Your task to perform on an android device: all mails in gmail Image 0: 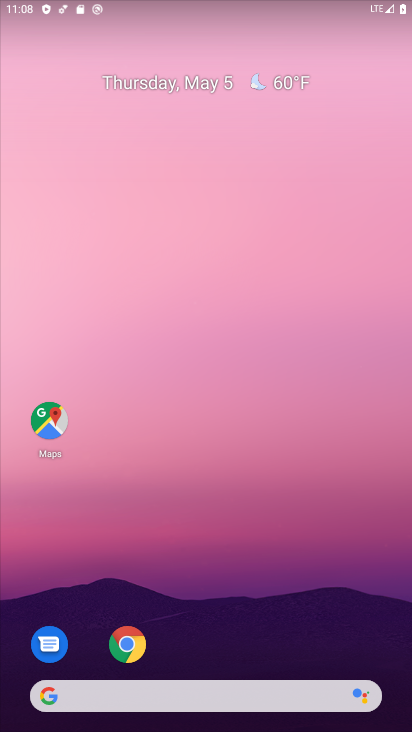
Step 0: drag from (379, 647) to (374, 154)
Your task to perform on an android device: all mails in gmail Image 1: 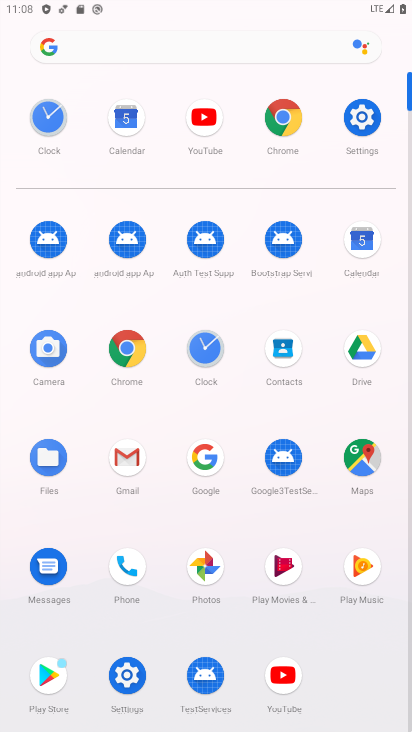
Step 1: click (132, 464)
Your task to perform on an android device: all mails in gmail Image 2: 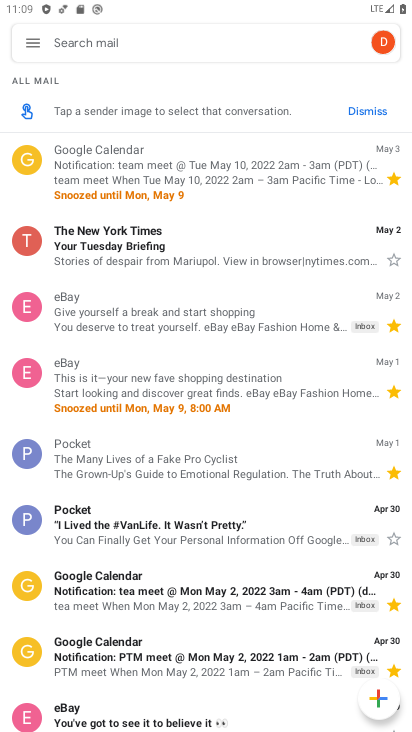
Step 2: task complete